Your task to perform on an android device: Search for a new perfume Image 0: 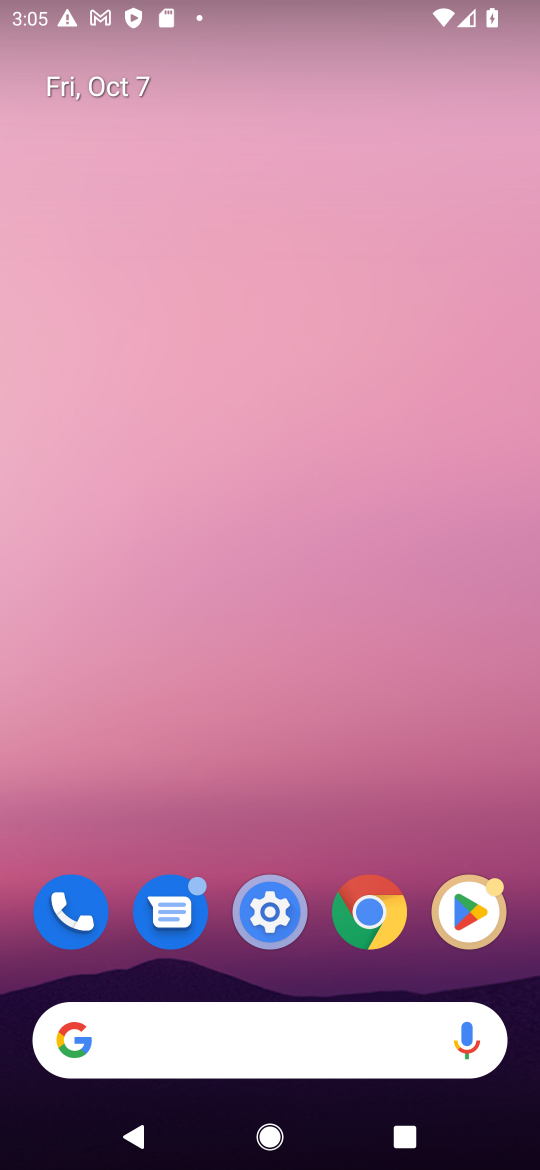
Step 0: drag from (312, 993) to (316, 397)
Your task to perform on an android device: Search for a new perfume Image 1: 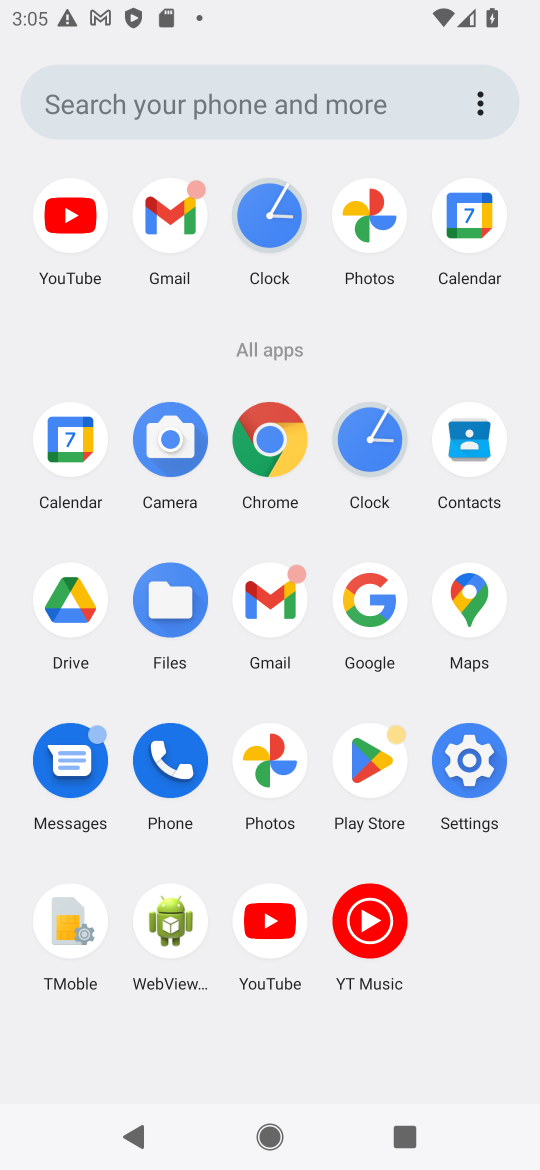
Step 1: click (355, 594)
Your task to perform on an android device: Search for a new perfume Image 2: 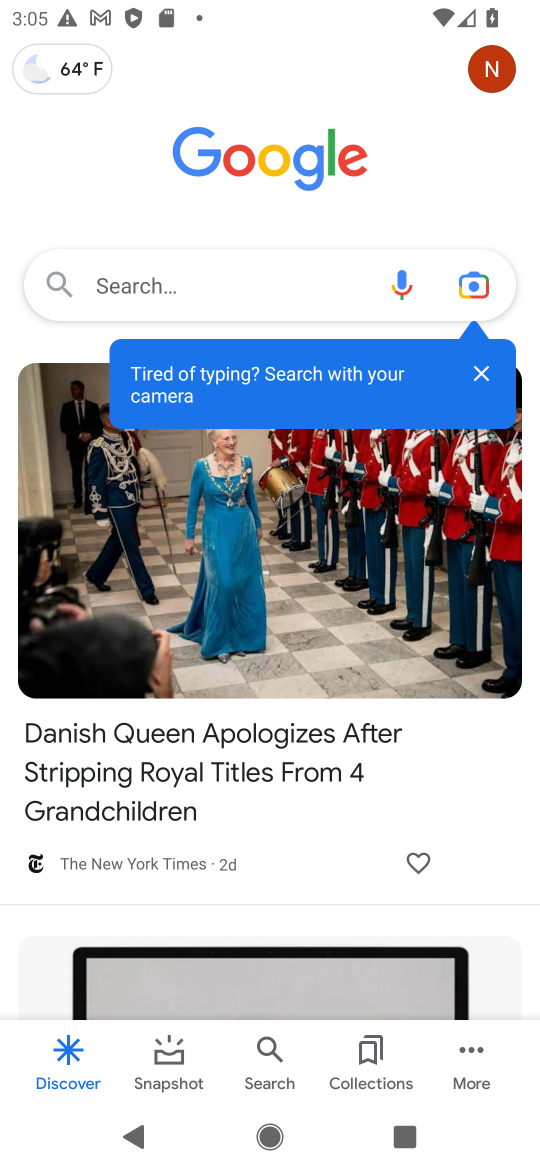
Step 2: click (177, 270)
Your task to perform on an android device: Search for a new perfume Image 3: 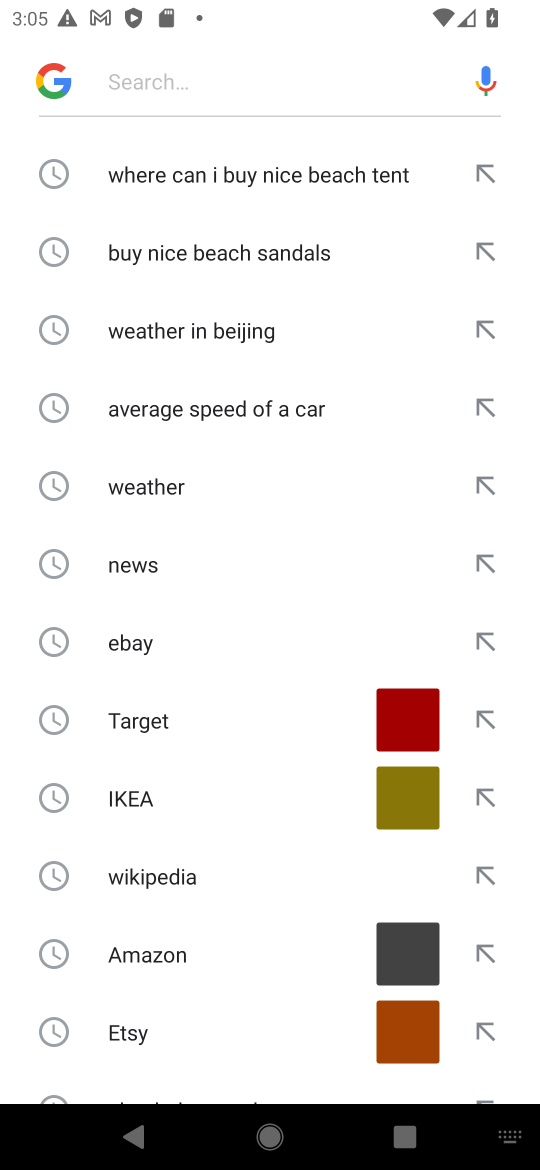
Step 3: type " a new perfume "
Your task to perform on an android device: Search for a new perfume Image 4: 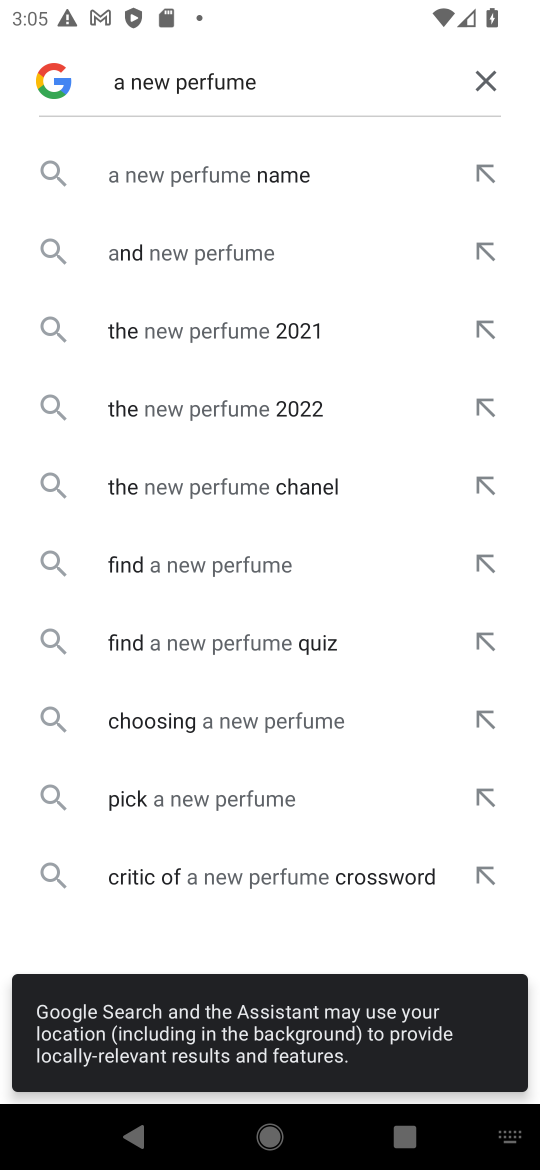
Step 4: click (187, 177)
Your task to perform on an android device: Search for a new perfume Image 5: 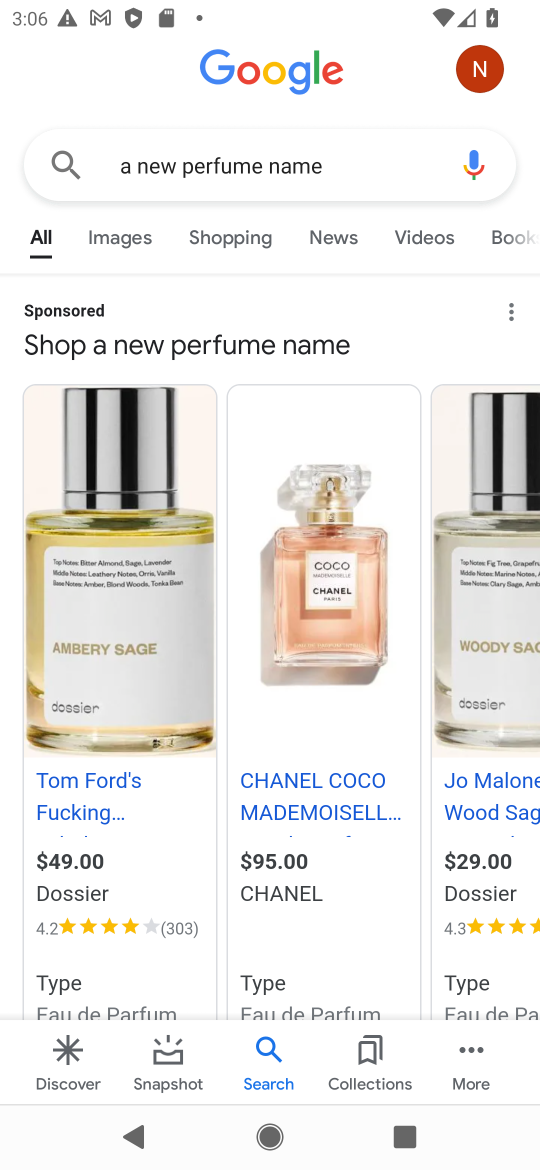
Step 5: task complete